Your task to perform on an android device: Check the weather Image 0: 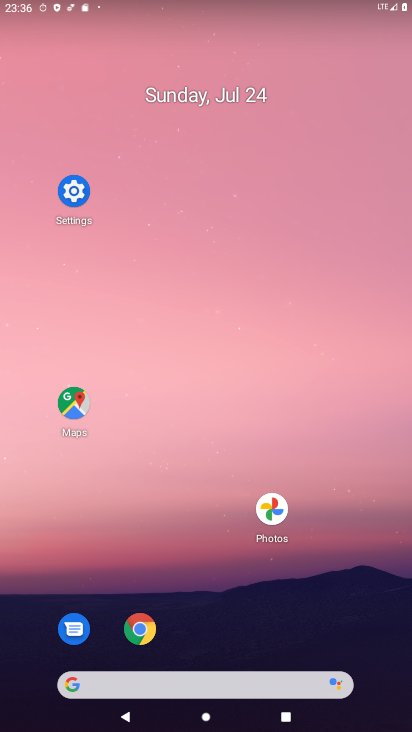
Step 0: drag from (227, 690) to (293, 108)
Your task to perform on an android device: Check the weather Image 1: 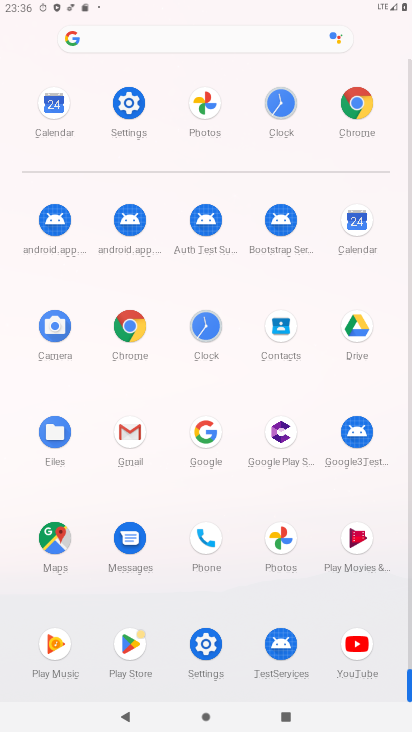
Step 1: drag from (244, 466) to (300, 44)
Your task to perform on an android device: Check the weather Image 2: 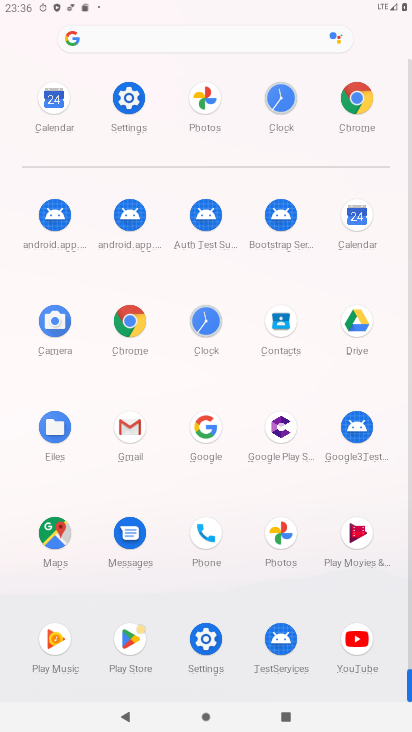
Step 2: click (362, 93)
Your task to perform on an android device: Check the weather Image 3: 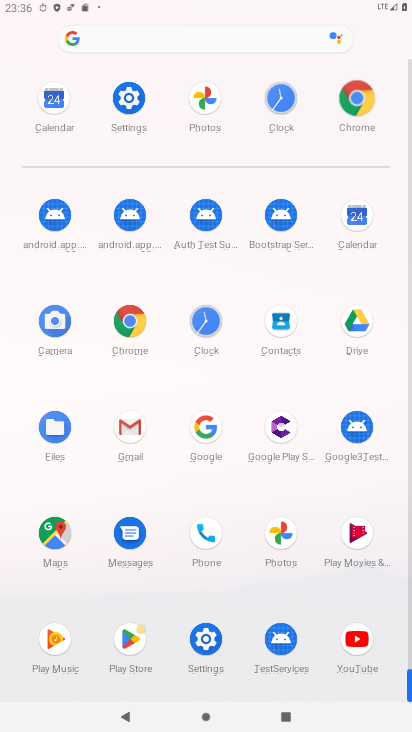
Step 3: click (362, 93)
Your task to perform on an android device: Check the weather Image 4: 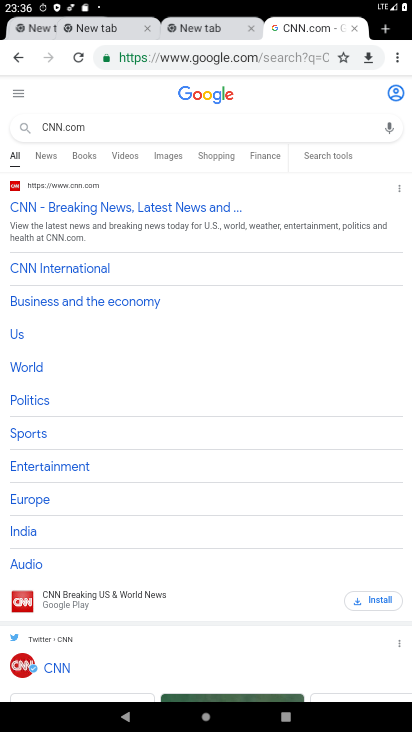
Step 4: click (146, 54)
Your task to perform on an android device: Check the weather Image 5: 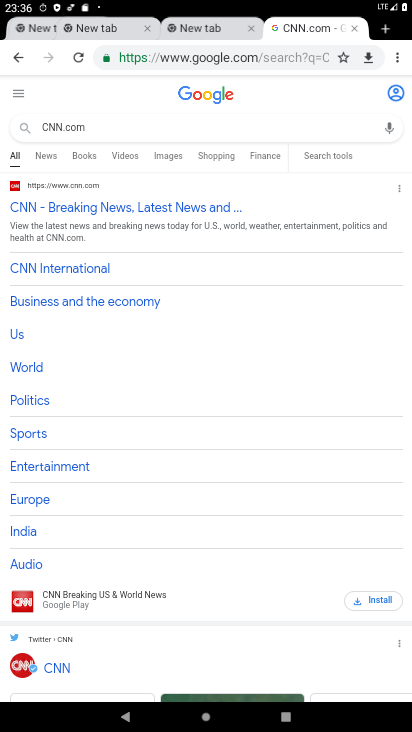
Step 5: click (148, 53)
Your task to perform on an android device: Check the weather Image 6: 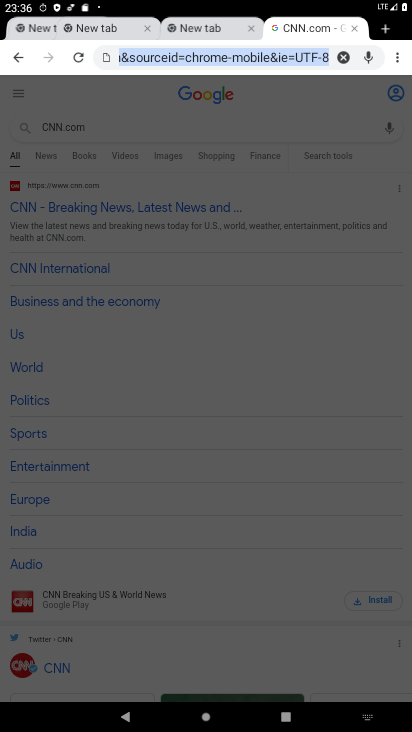
Step 6: click (148, 52)
Your task to perform on an android device: Check the weather Image 7: 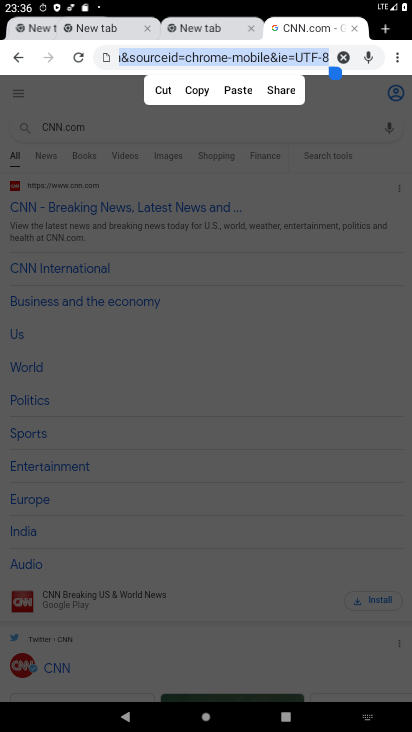
Step 7: click (171, 91)
Your task to perform on an android device: Check the weather Image 8: 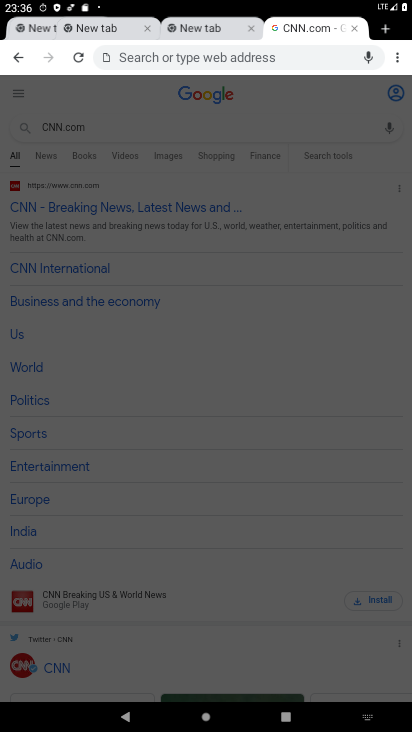
Step 8: type "weather"
Your task to perform on an android device: Check the weather Image 9: 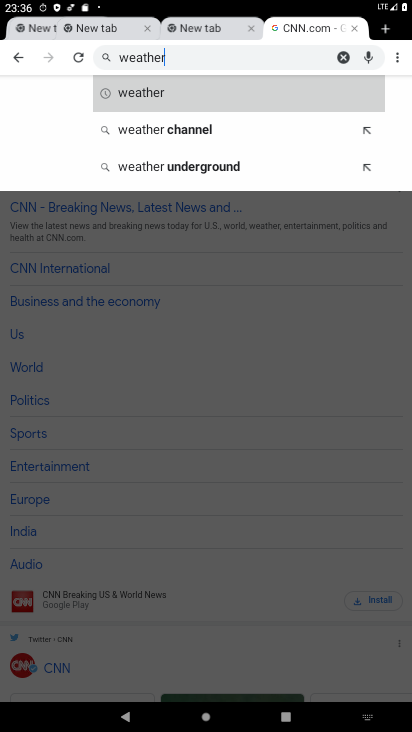
Step 9: click (164, 99)
Your task to perform on an android device: Check the weather Image 10: 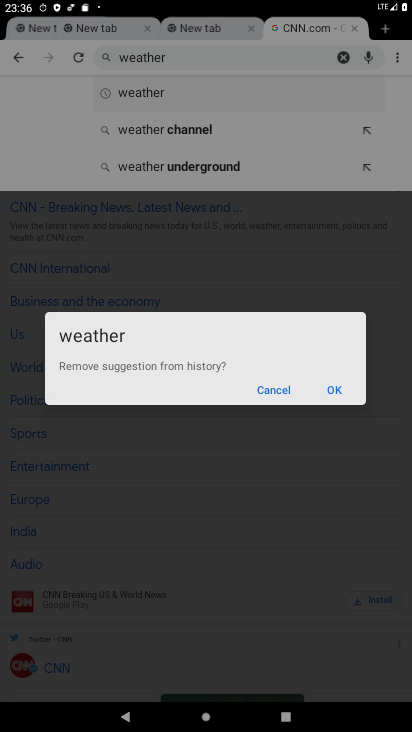
Step 10: click (132, 89)
Your task to perform on an android device: Check the weather Image 11: 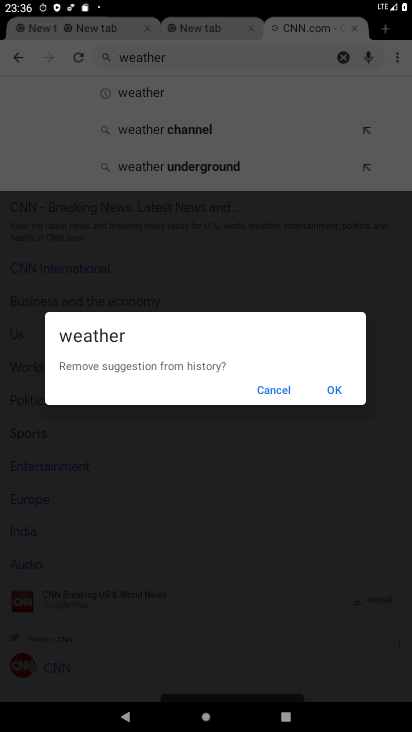
Step 11: click (131, 88)
Your task to perform on an android device: Check the weather Image 12: 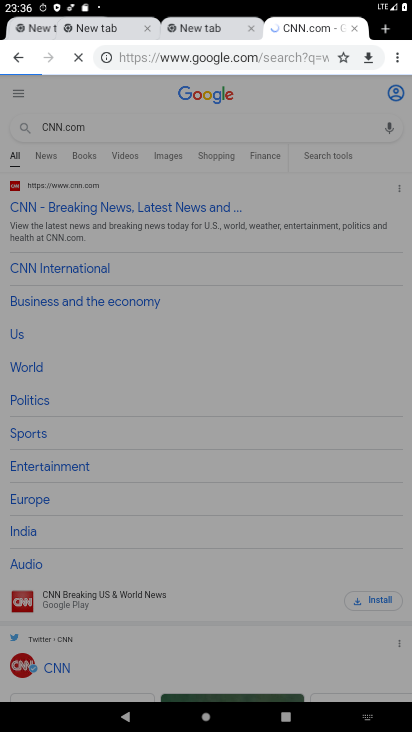
Step 12: click (135, 87)
Your task to perform on an android device: Check the weather Image 13: 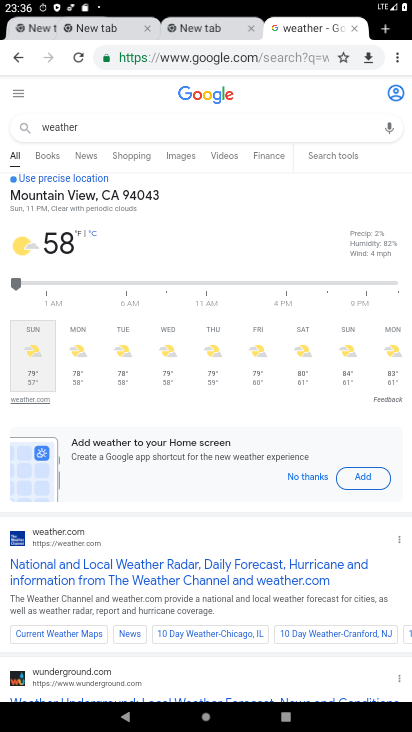
Step 13: task complete